Your task to perform on an android device: turn on translation in the chrome app Image 0: 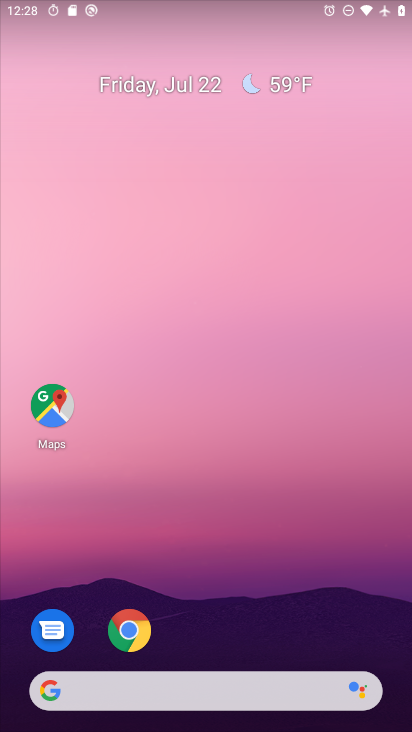
Step 0: drag from (206, 624) to (255, 143)
Your task to perform on an android device: turn on translation in the chrome app Image 1: 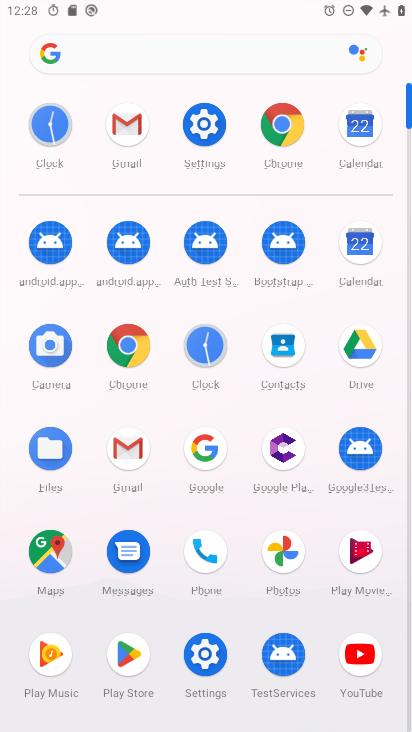
Step 1: click (289, 133)
Your task to perform on an android device: turn on translation in the chrome app Image 2: 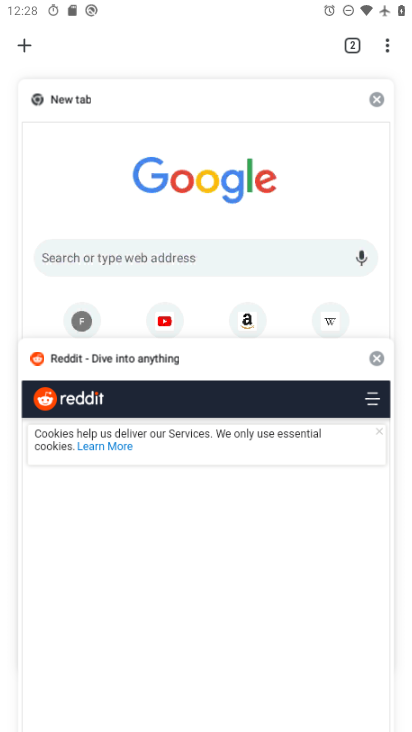
Step 2: drag from (380, 49) to (222, 173)
Your task to perform on an android device: turn on translation in the chrome app Image 3: 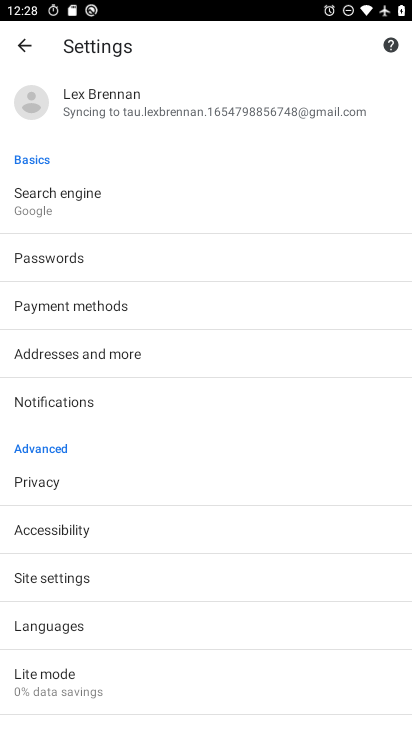
Step 3: click (48, 630)
Your task to perform on an android device: turn on translation in the chrome app Image 4: 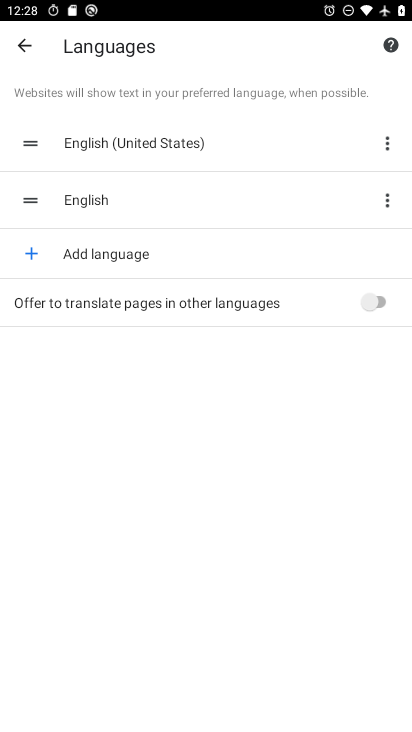
Step 4: click (368, 307)
Your task to perform on an android device: turn on translation in the chrome app Image 5: 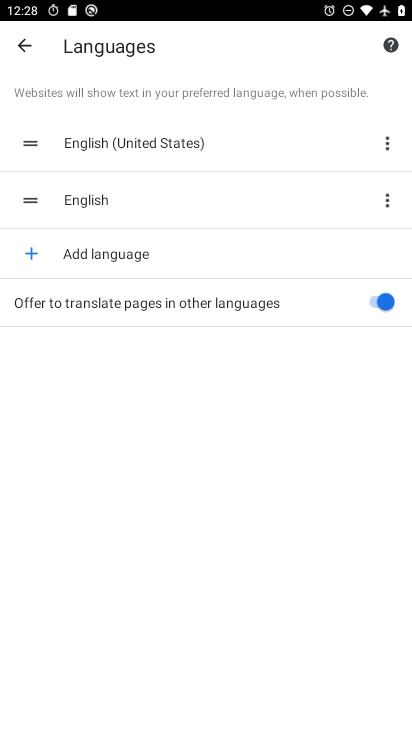
Step 5: task complete